Your task to perform on an android device: turn on sleep mode Image 0: 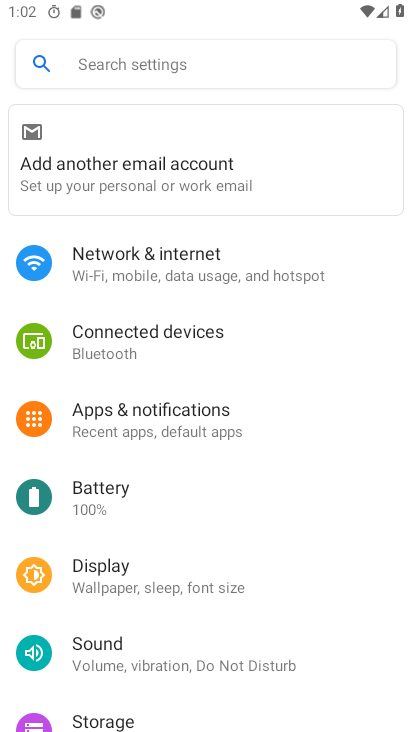
Step 0: click (148, 569)
Your task to perform on an android device: turn on sleep mode Image 1: 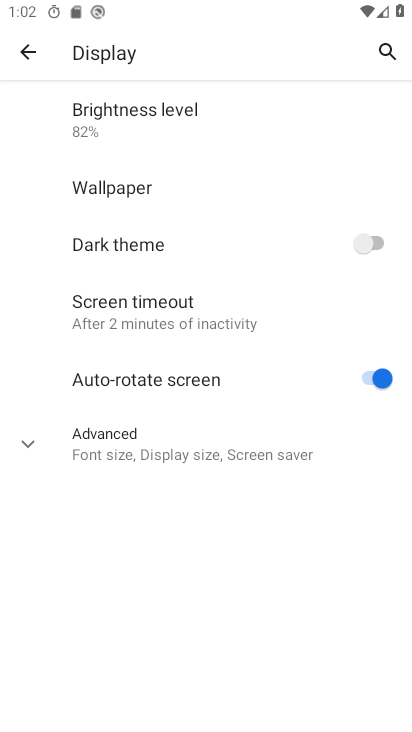
Step 1: click (194, 319)
Your task to perform on an android device: turn on sleep mode Image 2: 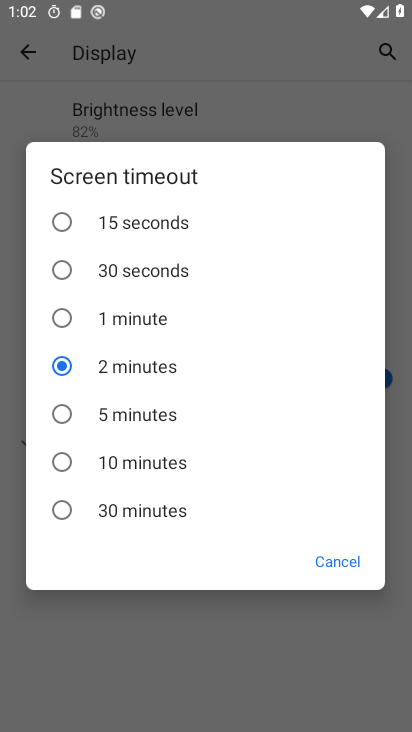
Step 2: task complete